Your task to perform on an android device: Go to Maps Image 0: 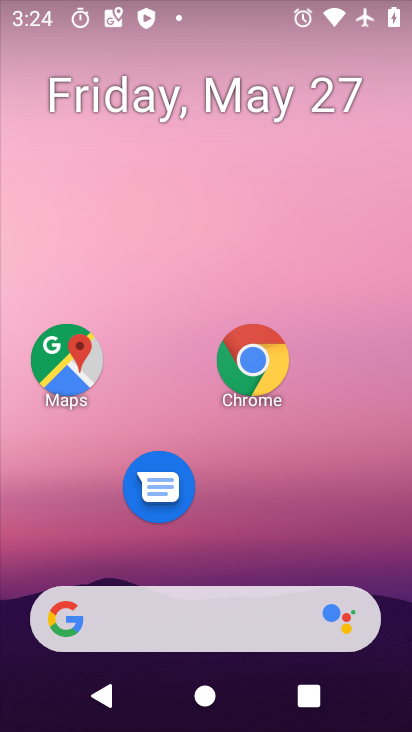
Step 0: drag from (262, 505) to (295, 114)
Your task to perform on an android device: Go to Maps Image 1: 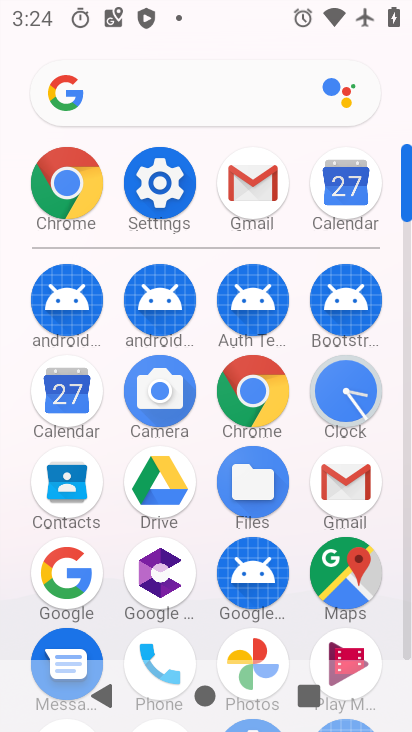
Step 1: click (339, 581)
Your task to perform on an android device: Go to Maps Image 2: 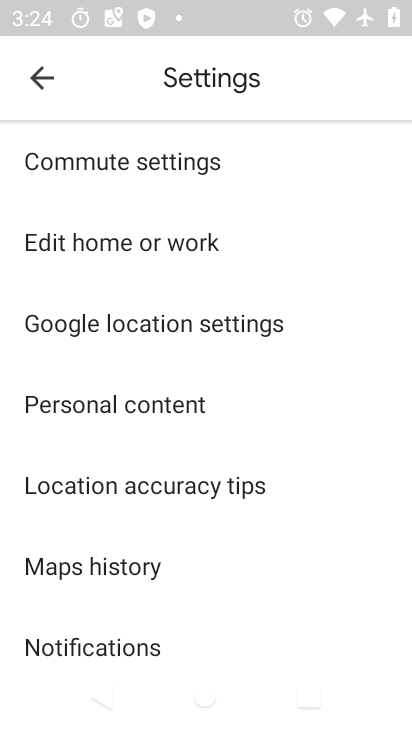
Step 2: task complete